Your task to perform on an android device: Is it going to rain this weekend? Image 0: 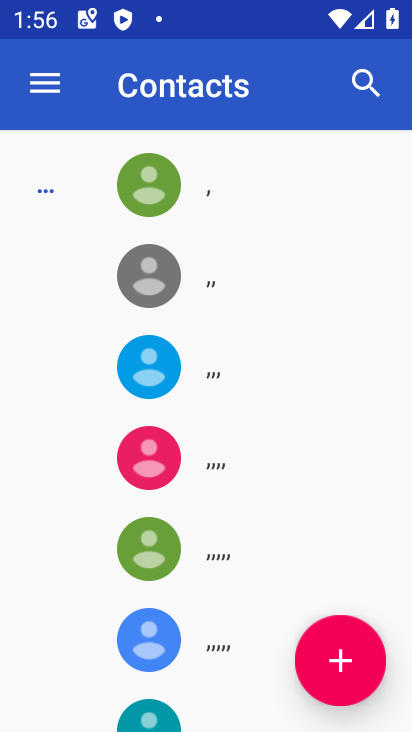
Step 0: press home button
Your task to perform on an android device: Is it going to rain this weekend? Image 1: 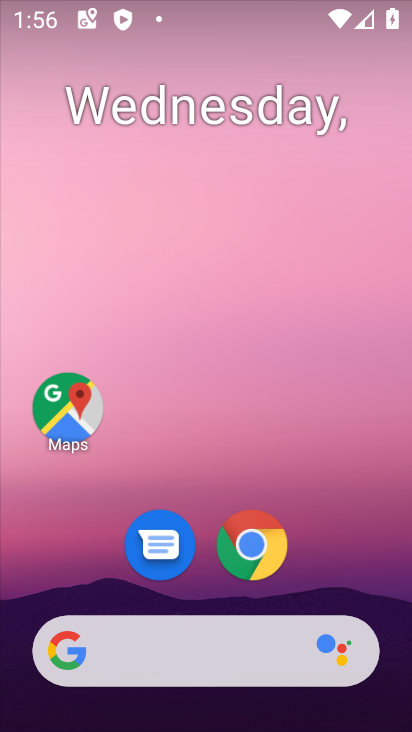
Step 1: click (260, 543)
Your task to perform on an android device: Is it going to rain this weekend? Image 2: 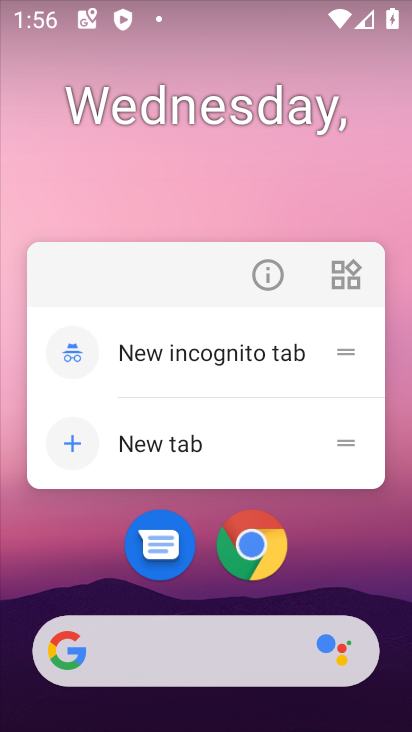
Step 2: click (242, 542)
Your task to perform on an android device: Is it going to rain this weekend? Image 3: 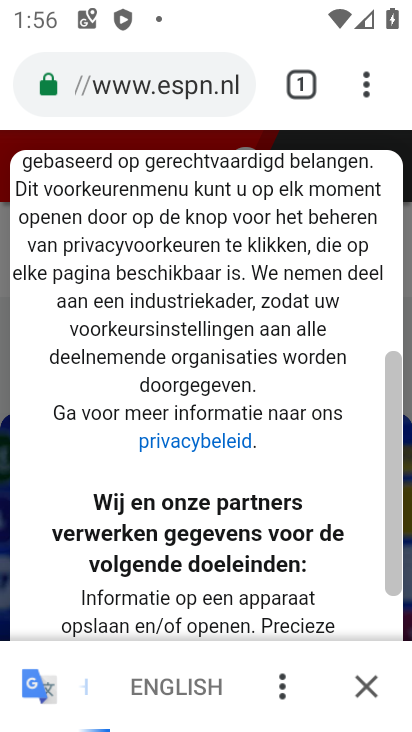
Step 3: click (189, 83)
Your task to perform on an android device: Is it going to rain this weekend? Image 4: 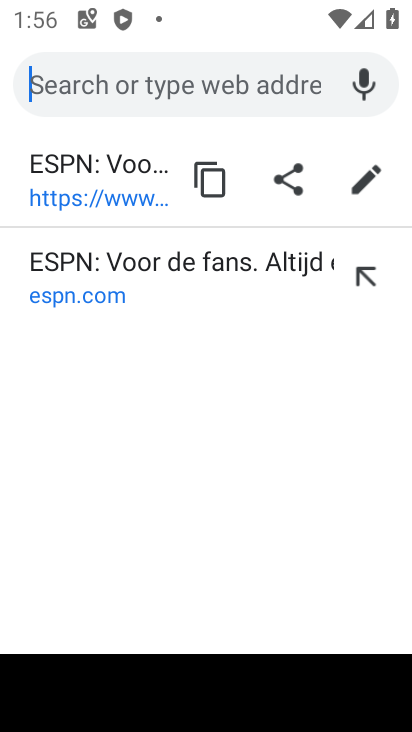
Step 4: type "weather weekend"
Your task to perform on an android device: Is it going to rain this weekend? Image 5: 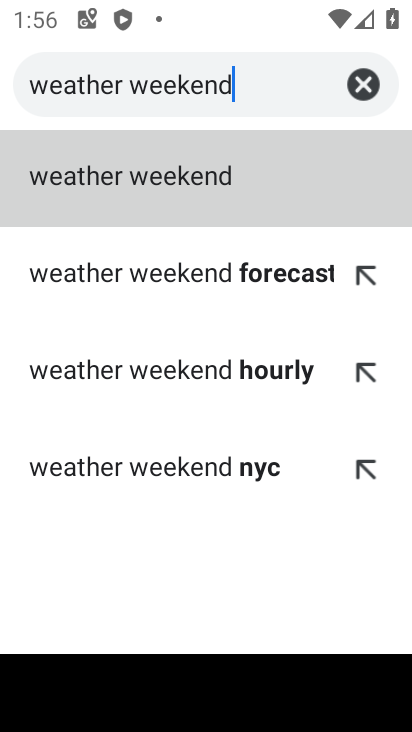
Step 5: click (137, 166)
Your task to perform on an android device: Is it going to rain this weekend? Image 6: 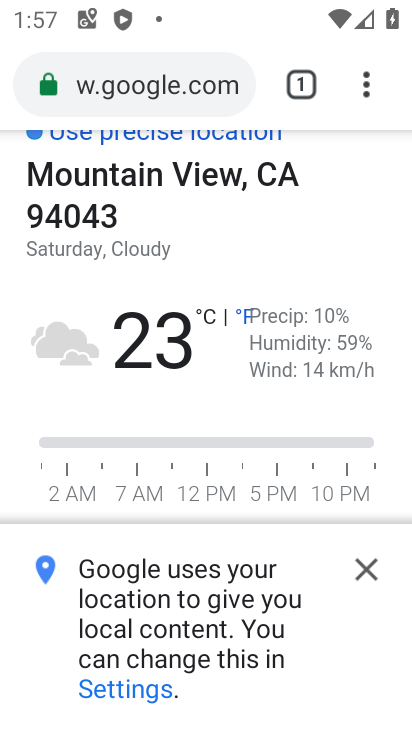
Step 6: task complete